Your task to perform on an android device: Open the stopwatch Image 0: 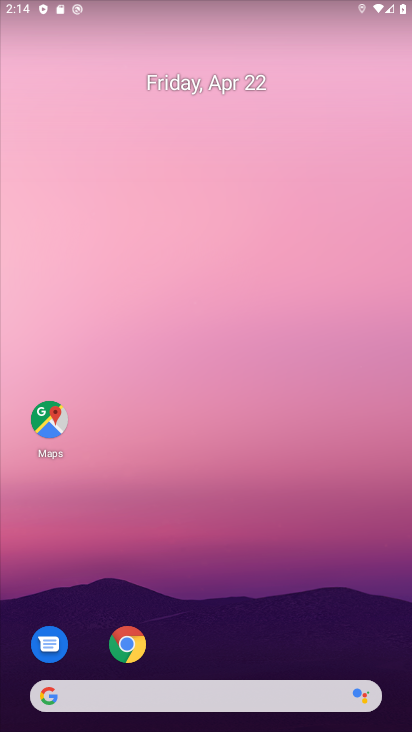
Step 0: click (130, 647)
Your task to perform on an android device: Open the stopwatch Image 1: 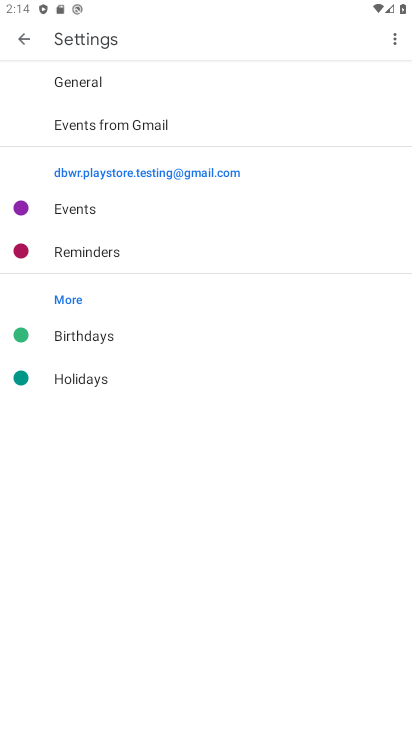
Step 1: press home button
Your task to perform on an android device: Open the stopwatch Image 2: 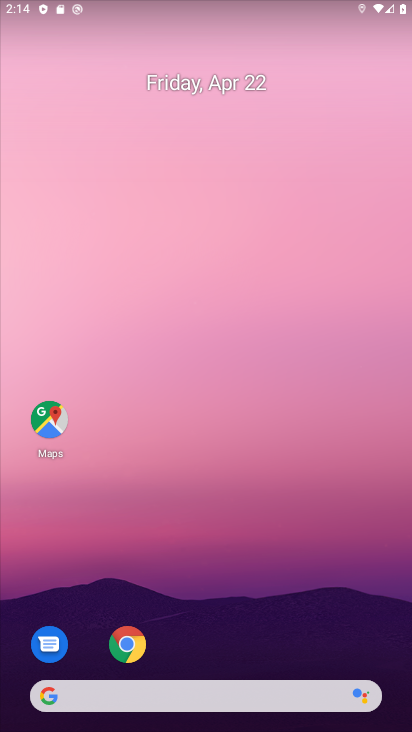
Step 2: drag from (242, 608) to (201, 207)
Your task to perform on an android device: Open the stopwatch Image 3: 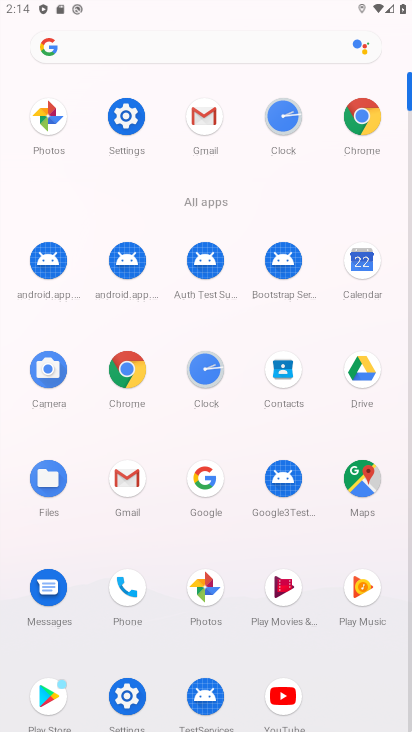
Step 3: click (291, 126)
Your task to perform on an android device: Open the stopwatch Image 4: 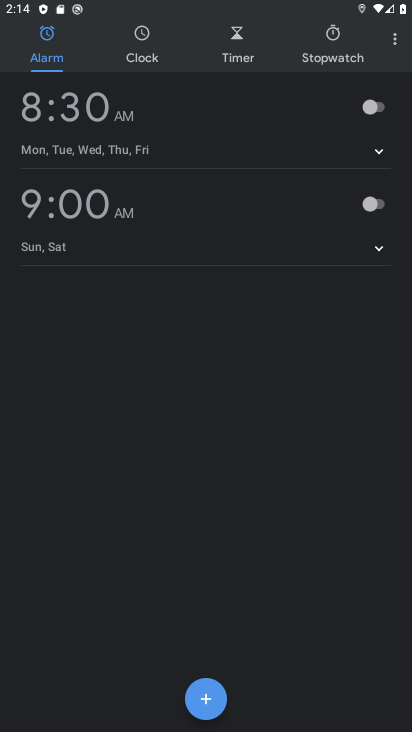
Step 4: click (333, 62)
Your task to perform on an android device: Open the stopwatch Image 5: 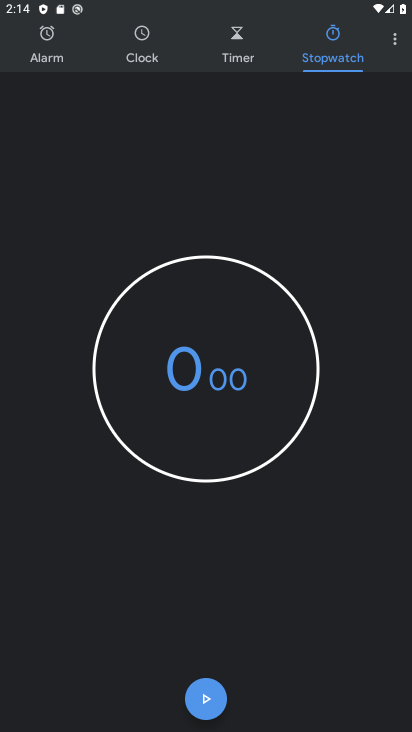
Step 5: click (212, 709)
Your task to perform on an android device: Open the stopwatch Image 6: 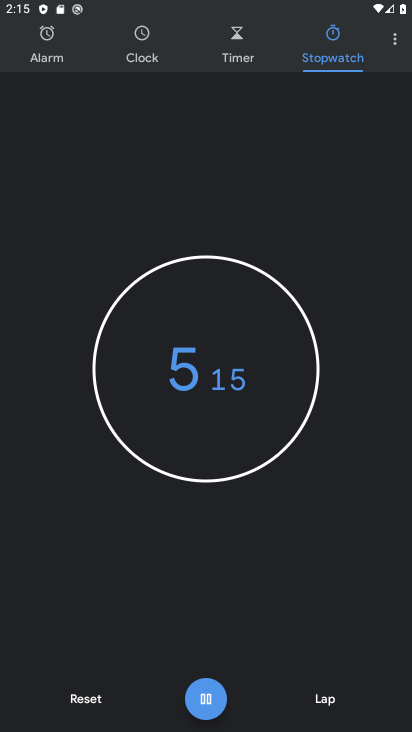
Step 6: click (204, 708)
Your task to perform on an android device: Open the stopwatch Image 7: 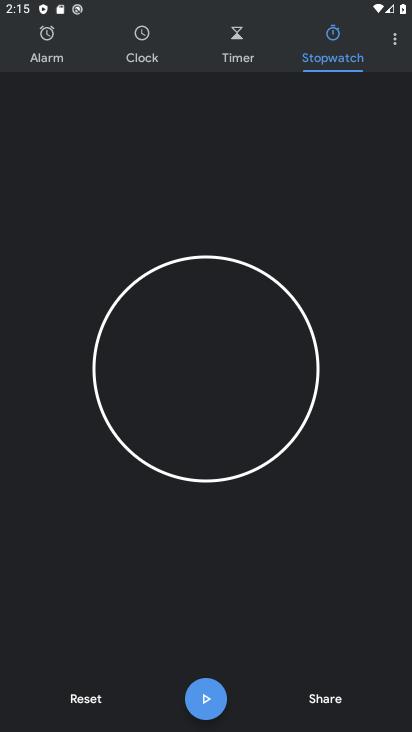
Step 7: task complete